Your task to perform on an android device: Is it going to rain tomorrow? Image 0: 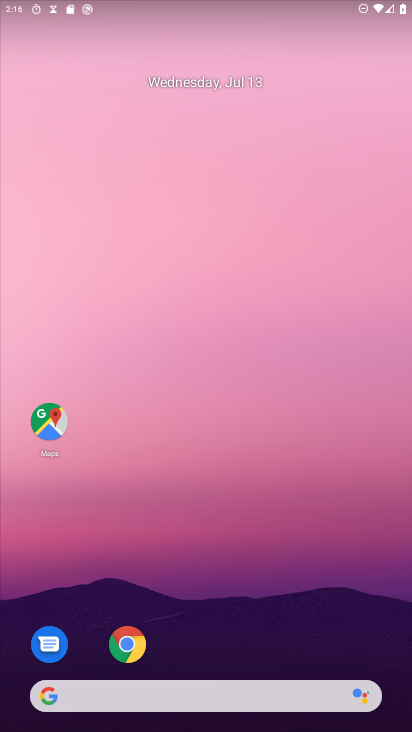
Step 0: click (218, 692)
Your task to perform on an android device: Is it going to rain tomorrow? Image 1: 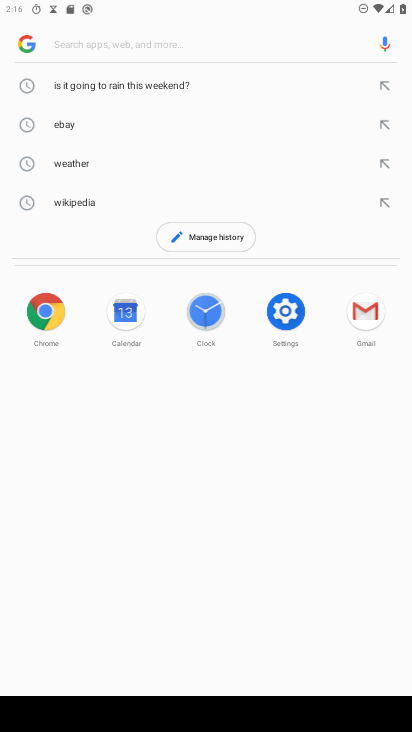
Step 1: type "Is it going to rain tomorrow?"
Your task to perform on an android device: Is it going to rain tomorrow? Image 2: 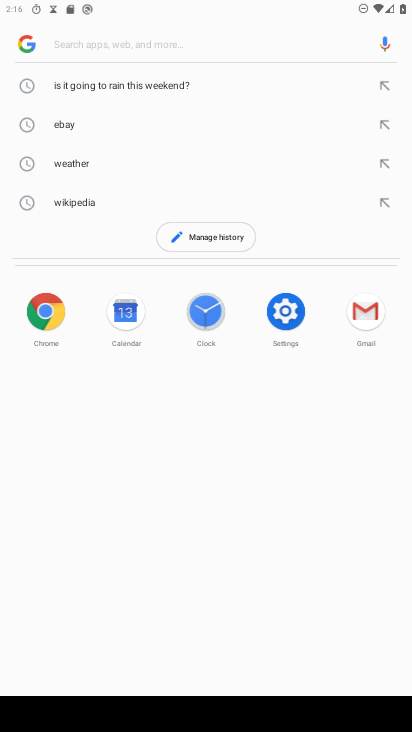
Step 2: click (112, 43)
Your task to perform on an android device: Is it going to rain tomorrow? Image 3: 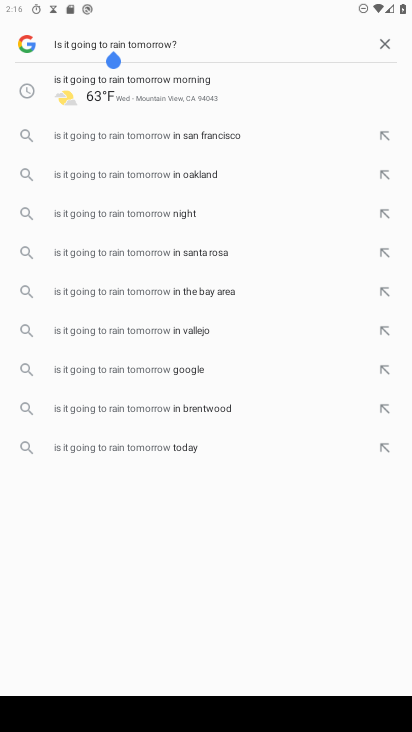
Step 3: press enter
Your task to perform on an android device: Is it going to rain tomorrow? Image 4: 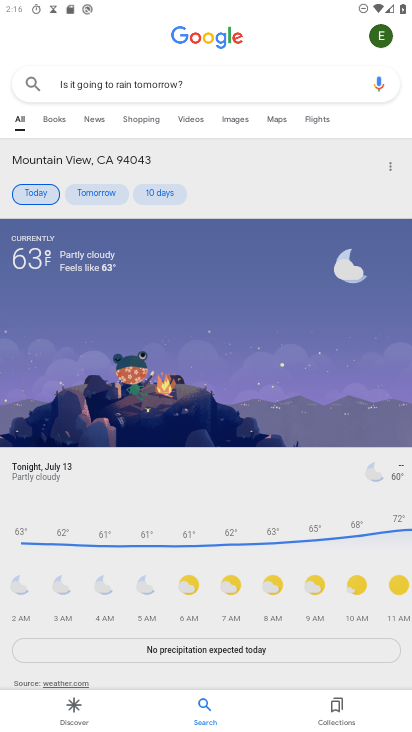
Step 4: task complete